Your task to perform on an android device: Go to Google maps Image 0: 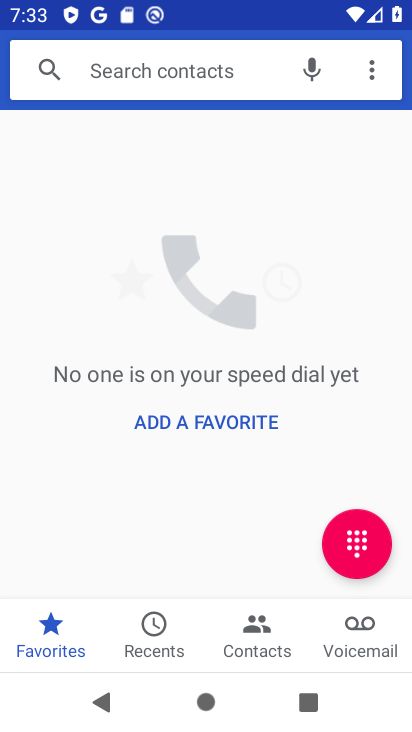
Step 0: press home button
Your task to perform on an android device: Go to Google maps Image 1: 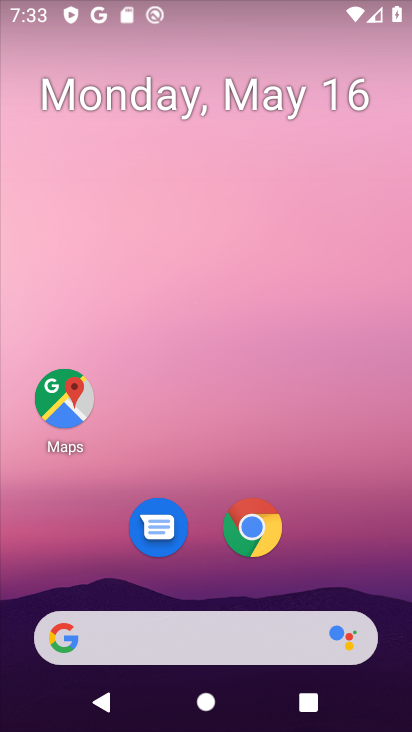
Step 1: click (56, 393)
Your task to perform on an android device: Go to Google maps Image 2: 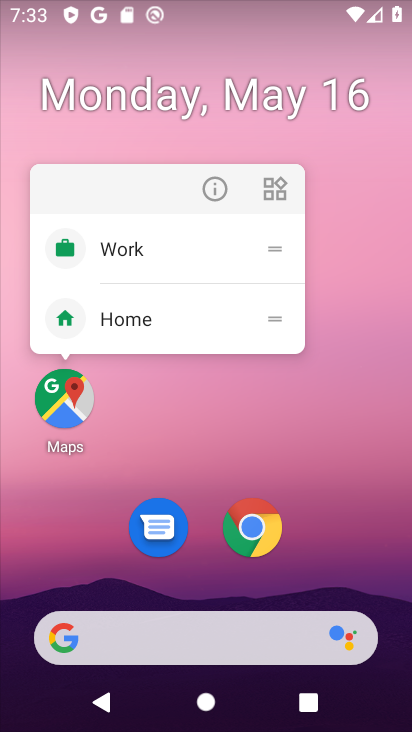
Step 2: click (54, 405)
Your task to perform on an android device: Go to Google maps Image 3: 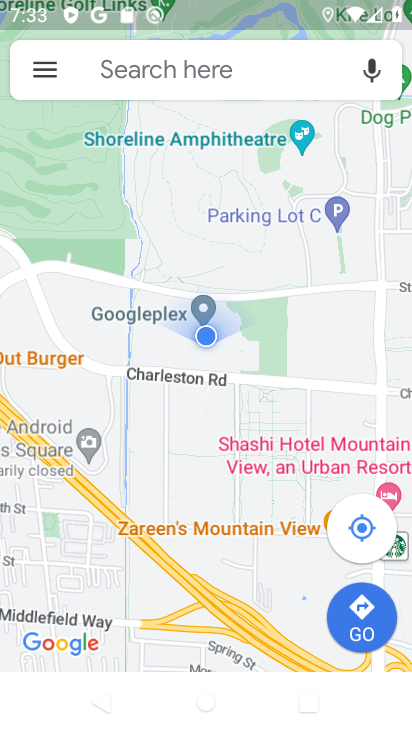
Step 3: task complete